Your task to perform on an android device: Open Maps and search for coffee Image 0: 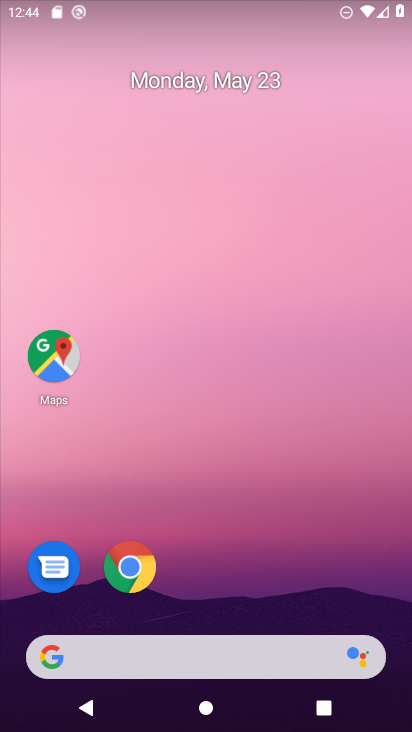
Step 0: click (64, 343)
Your task to perform on an android device: Open Maps and search for coffee Image 1: 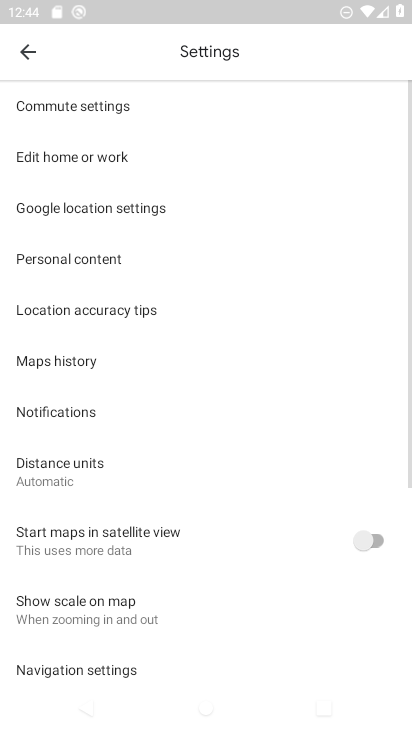
Step 1: click (35, 62)
Your task to perform on an android device: Open Maps and search for coffee Image 2: 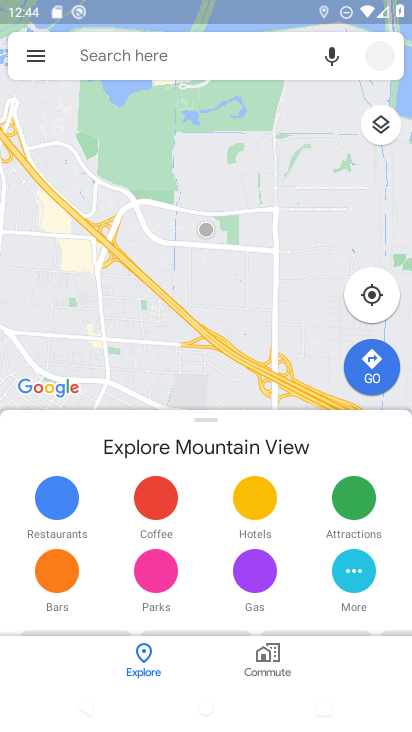
Step 2: click (35, 62)
Your task to perform on an android device: Open Maps and search for coffee Image 3: 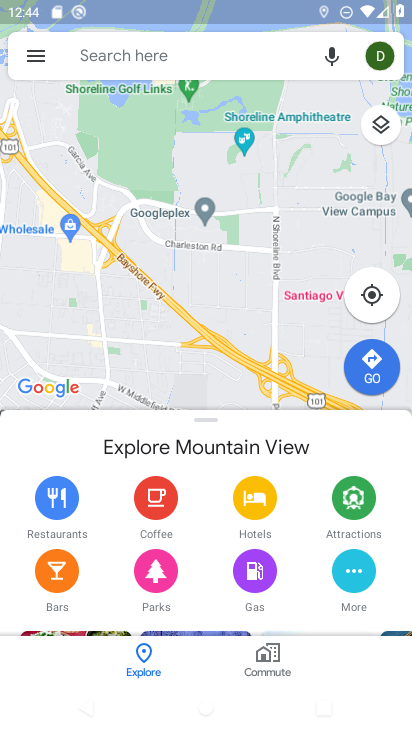
Step 3: click (116, 54)
Your task to perform on an android device: Open Maps and search for coffee Image 4: 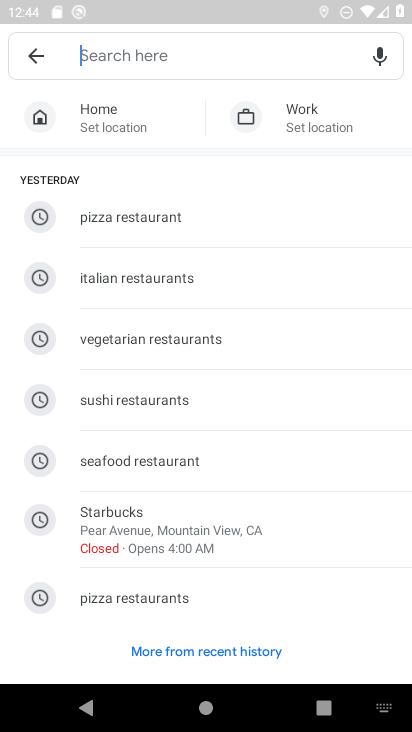
Step 4: click (312, 60)
Your task to perform on an android device: Open Maps and search for coffee Image 5: 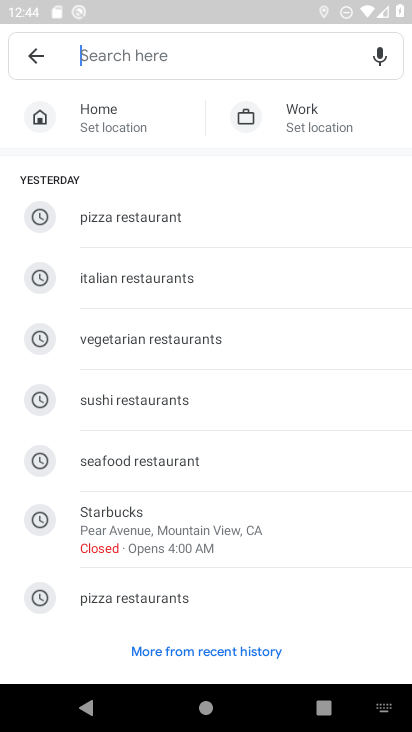
Step 5: type "coffee"
Your task to perform on an android device: Open Maps and search for coffee Image 6: 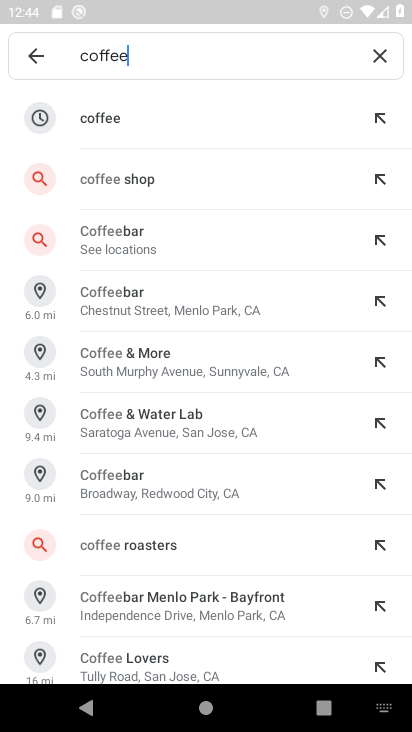
Step 6: click (130, 130)
Your task to perform on an android device: Open Maps and search for coffee Image 7: 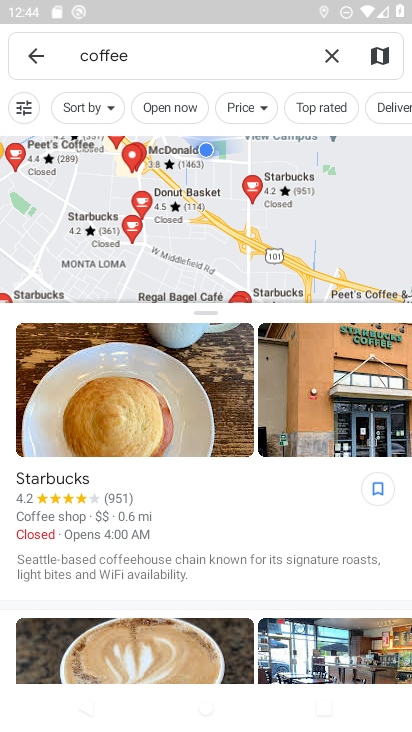
Step 7: task complete